Your task to perform on an android device: turn on translation in the chrome app Image 0: 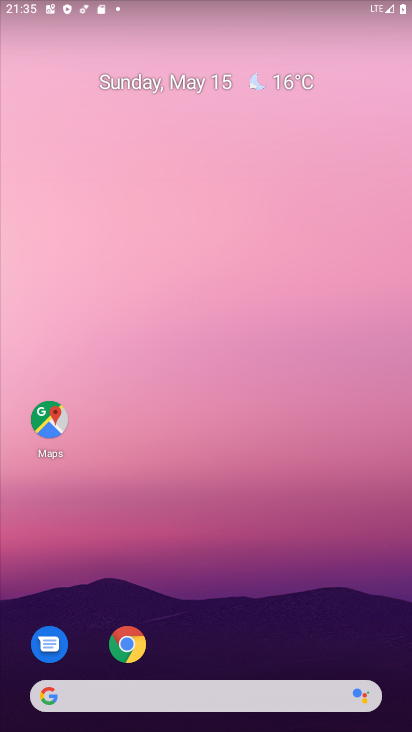
Step 0: click (241, 171)
Your task to perform on an android device: turn on translation in the chrome app Image 1: 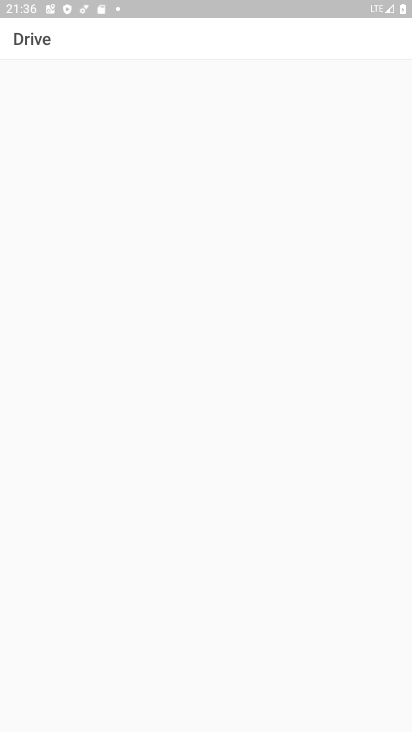
Step 1: drag from (287, 138) to (293, 100)
Your task to perform on an android device: turn on translation in the chrome app Image 2: 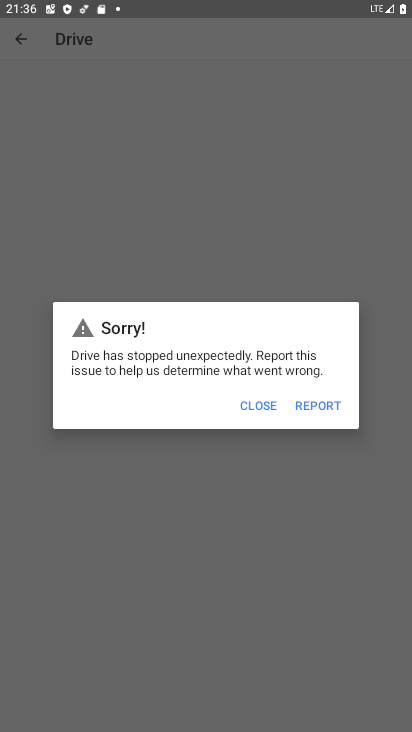
Step 2: press back button
Your task to perform on an android device: turn on translation in the chrome app Image 3: 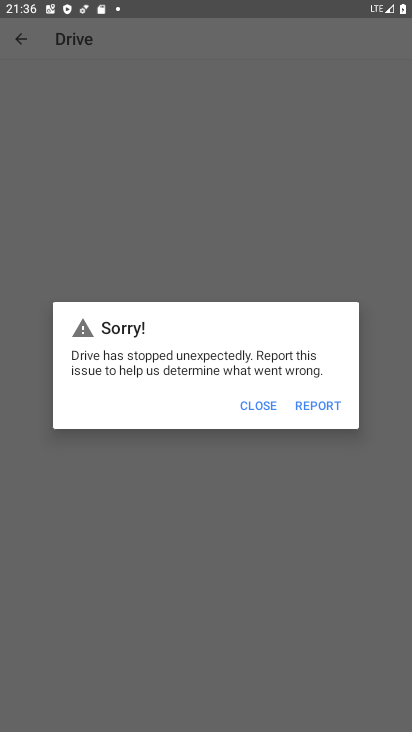
Step 3: press home button
Your task to perform on an android device: turn on translation in the chrome app Image 4: 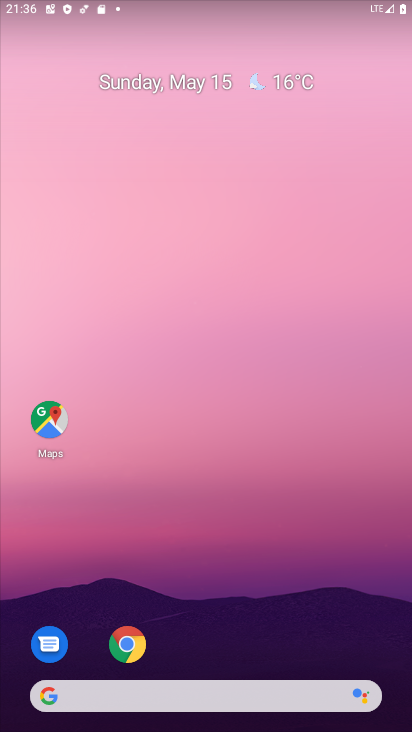
Step 4: drag from (212, 641) to (281, 167)
Your task to perform on an android device: turn on translation in the chrome app Image 5: 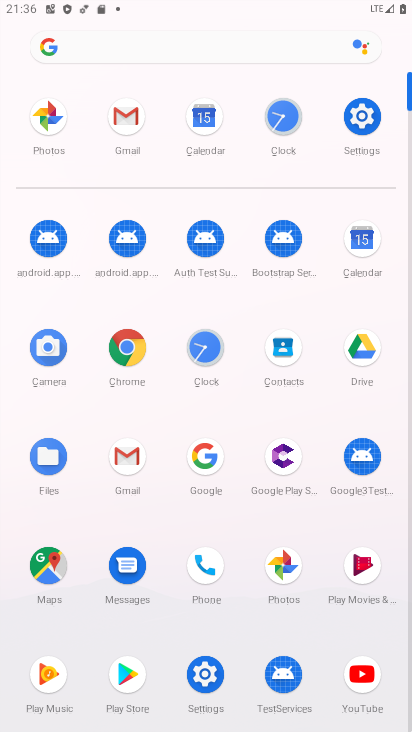
Step 5: click (130, 342)
Your task to perform on an android device: turn on translation in the chrome app Image 6: 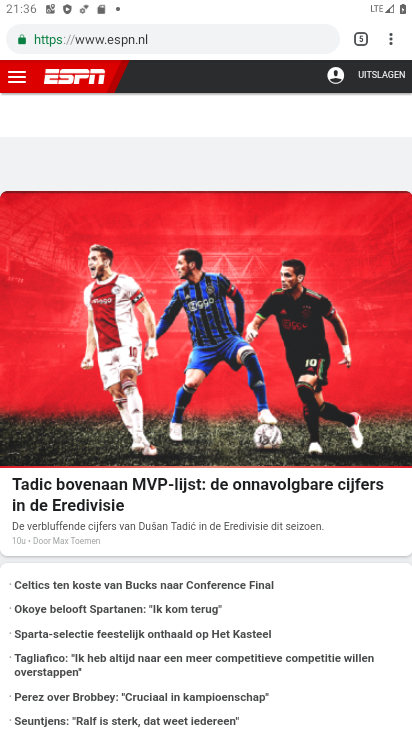
Step 6: click (395, 29)
Your task to perform on an android device: turn on translation in the chrome app Image 7: 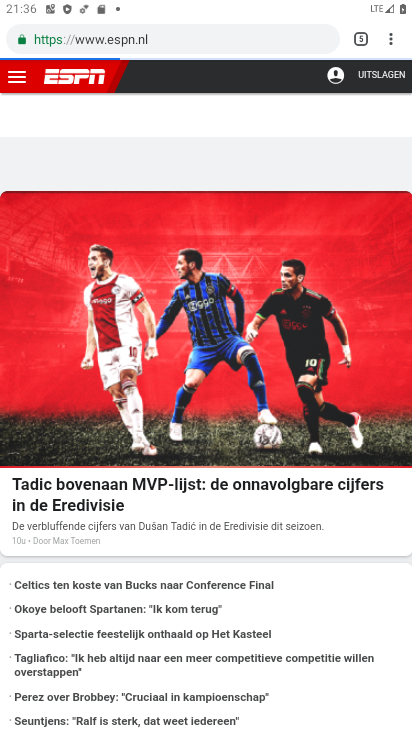
Step 7: drag from (394, 31) to (265, 433)
Your task to perform on an android device: turn on translation in the chrome app Image 8: 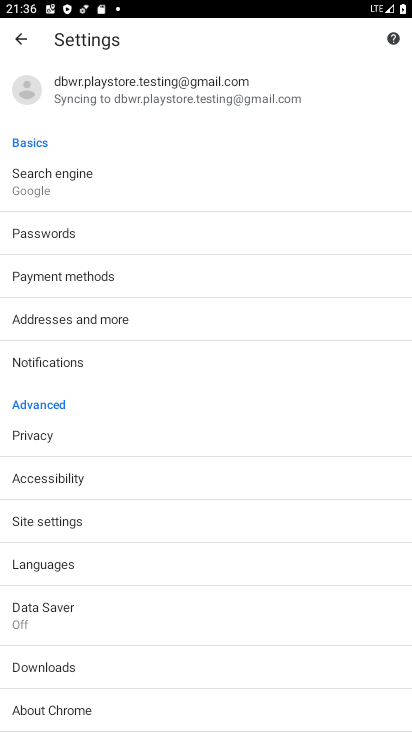
Step 8: click (41, 559)
Your task to perform on an android device: turn on translation in the chrome app Image 9: 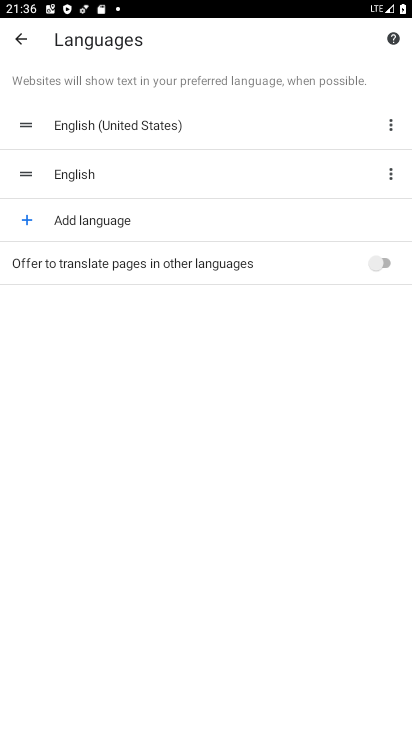
Step 9: click (373, 264)
Your task to perform on an android device: turn on translation in the chrome app Image 10: 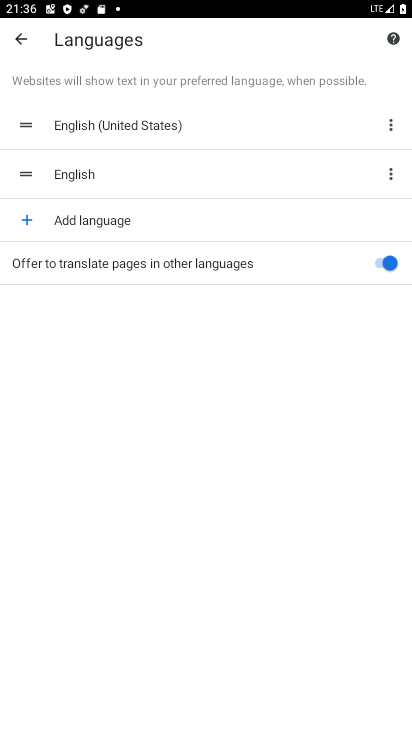
Step 10: task complete